Your task to perform on an android device: Open Youtube and go to the subscriptions tab Image 0: 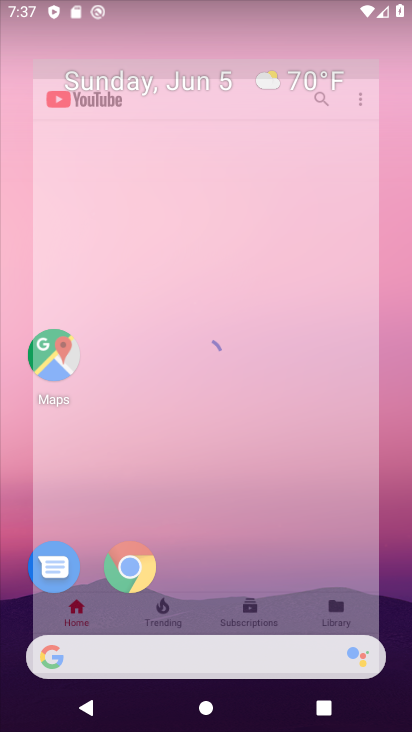
Step 0: press home button
Your task to perform on an android device: Open Youtube and go to the subscriptions tab Image 1: 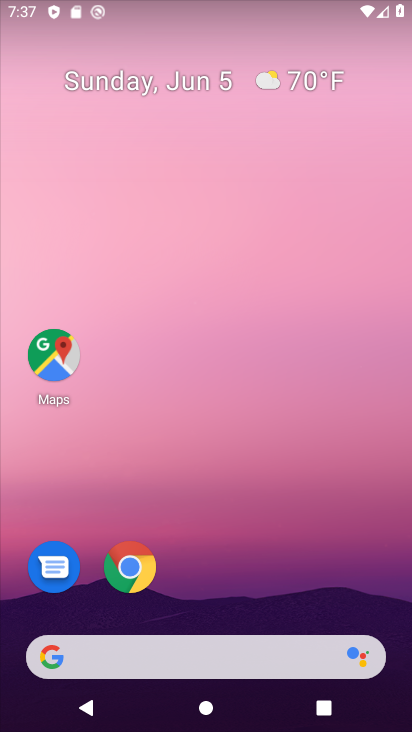
Step 1: drag from (211, 582) to (210, 108)
Your task to perform on an android device: Open Youtube and go to the subscriptions tab Image 2: 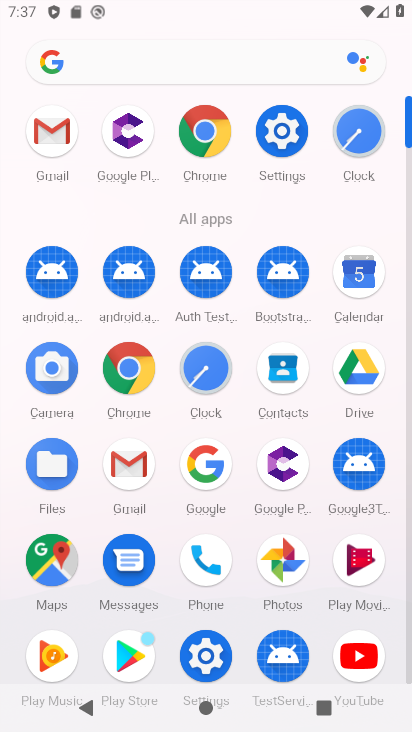
Step 2: click (355, 662)
Your task to perform on an android device: Open Youtube and go to the subscriptions tab Image 3: 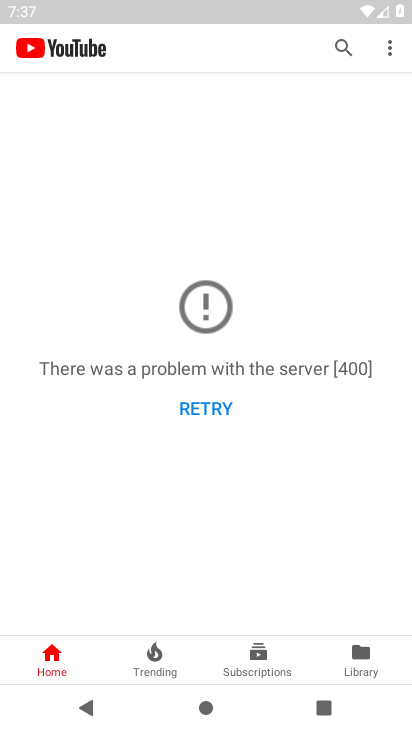
Step 3: click (257, 672)
Your task to perform on an android device: Open Youtube and go to the subscriptions tab Image 4: 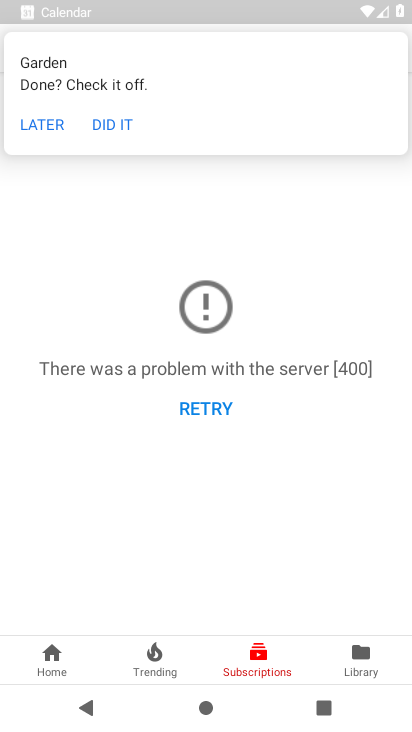
Step 4: task complete